Your task to perform on an android device: Search for hotels in Los Angeles Image 0: 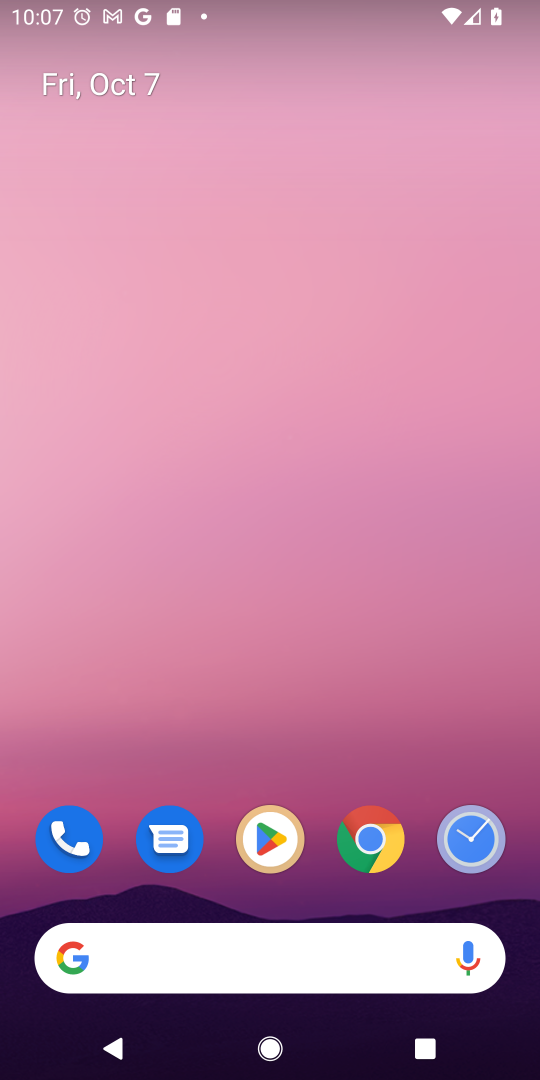
Step 0: click (373, 840)
Your task to perform on an android device: Search for hotels in Los Angeles Image 1: 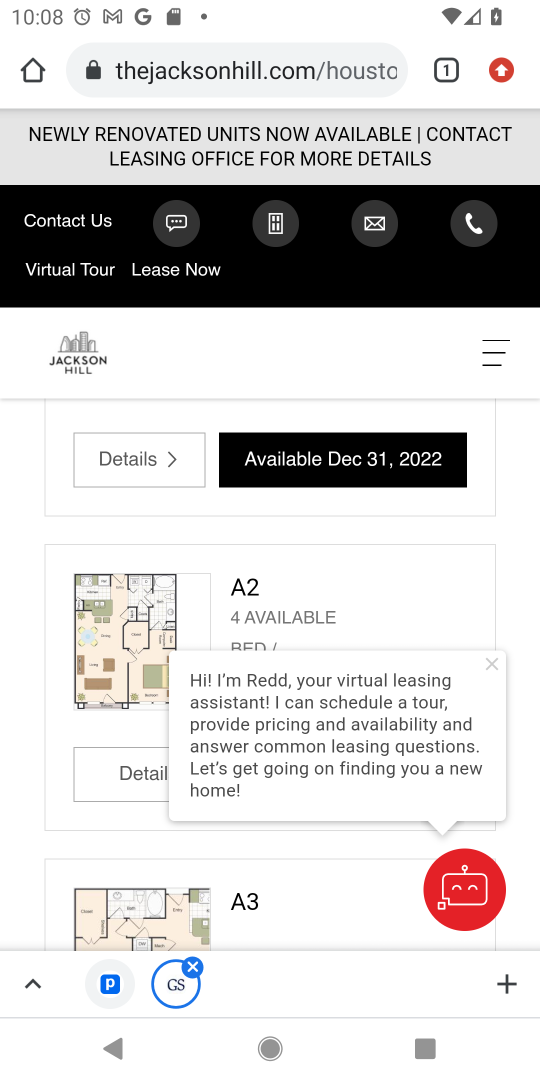
Step 1: click (280, 64)
Your task to perform on an android device: Search for hotels in Los Angeles Image 2: 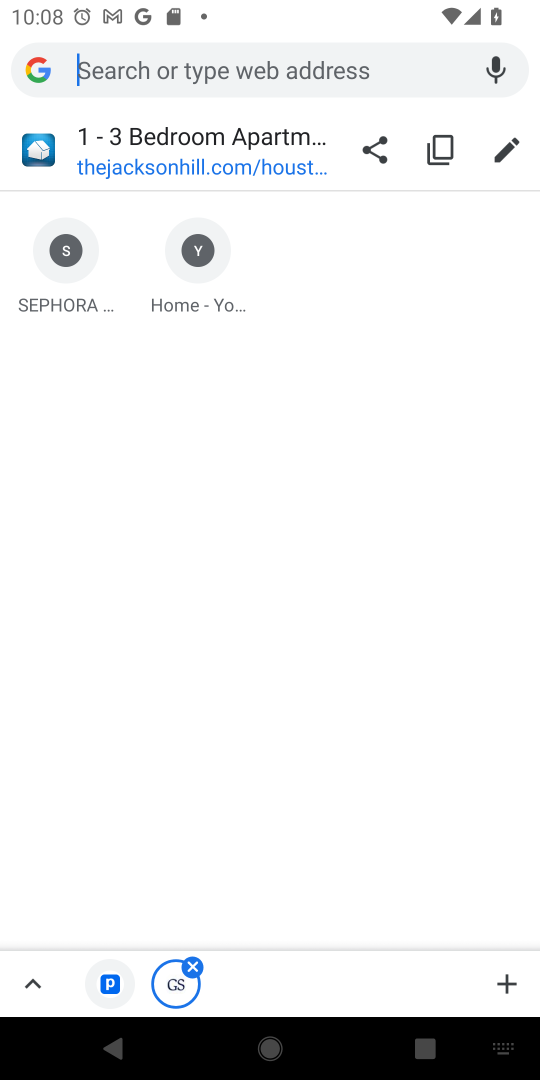
Step 2: type "hotel in los angeles"
Your task to perform on an android device: Search for hotels in Los Angeles Image 3: 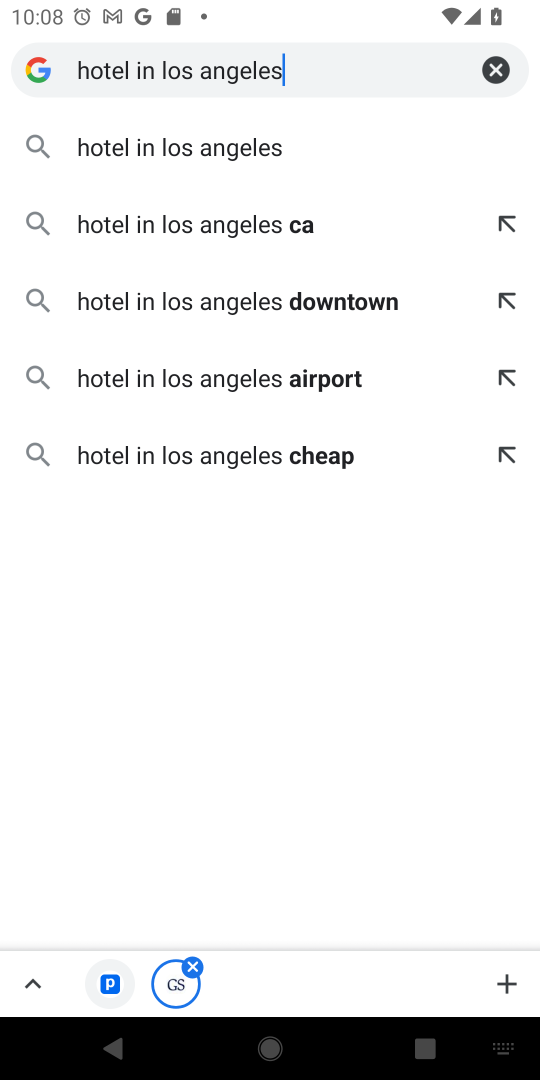
Step 3: click (175, 149)
Your task to perform on an android device: Search for hotels in Los Angeles Image 4: 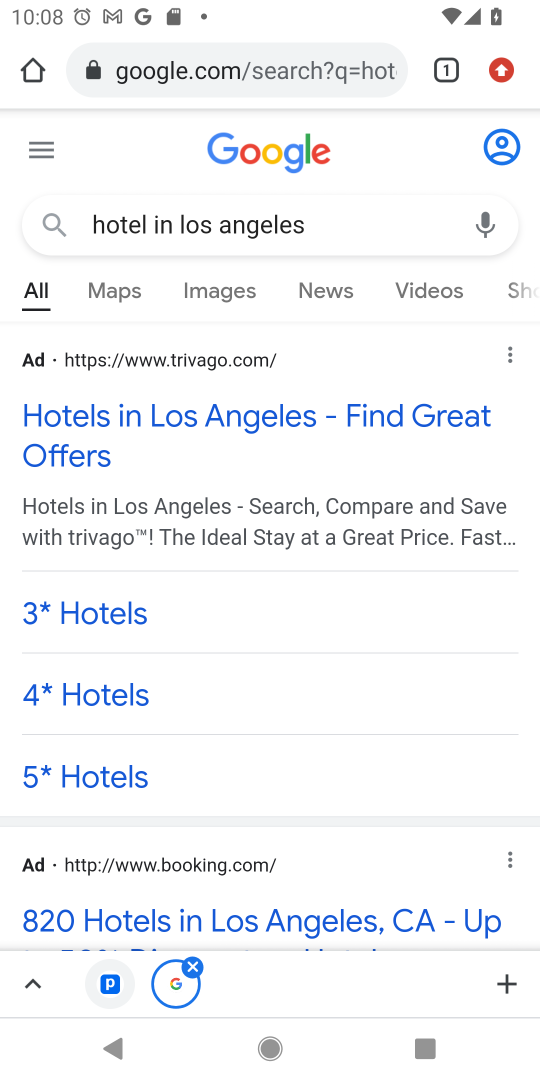
Step 4: click (249, 411)
Your task to perform on an android device: Search for hotels in Los Angeles Image 5: 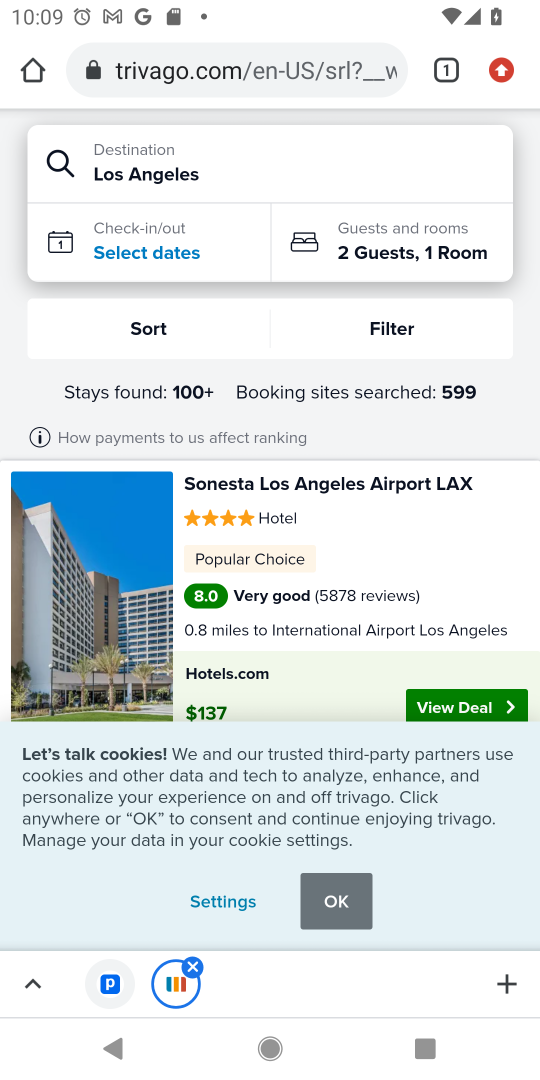
Step 5: drag from (90, 577) to (150, 247)
Your task to perform on an android device: Search for hotels in Los Angeles Image 6: 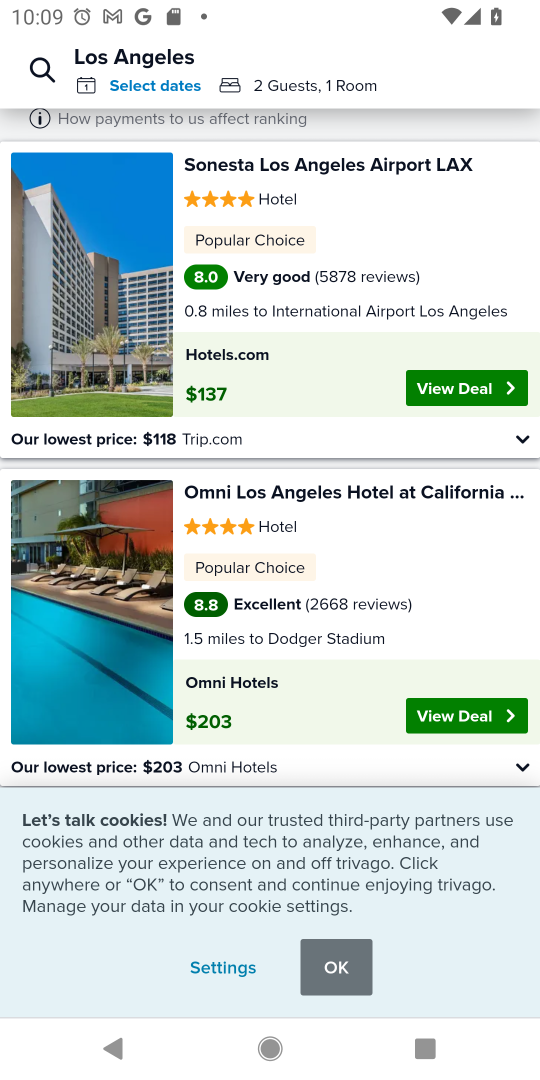
Step 6: drag from (72, 673) to (98, 328)
Your task to perform on an android device: Search for hotels in Los Angeles Image 7: 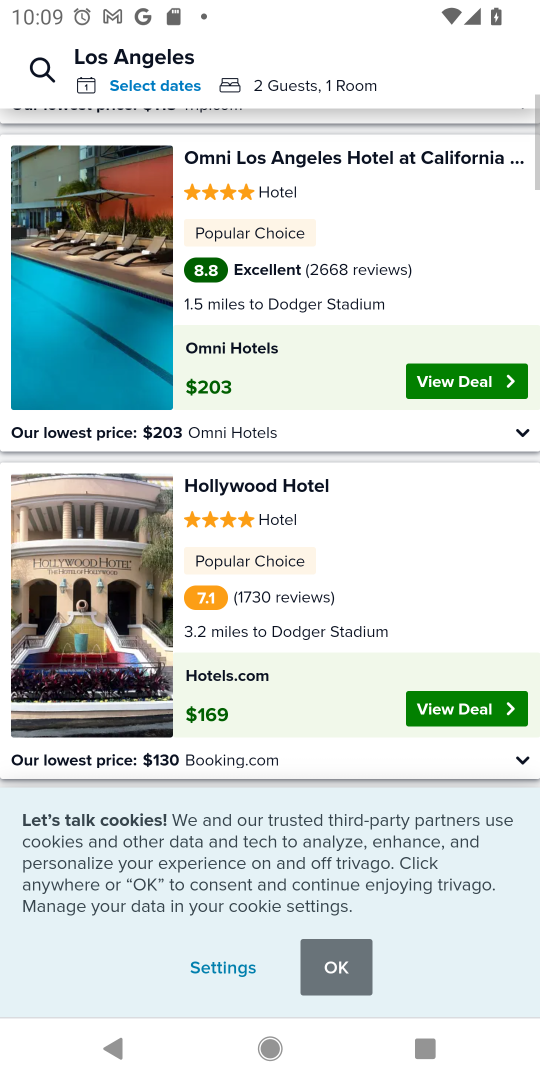
Step 7: drag from (94, 651) to (196, 276)
Your task to perform on an android device: Search for hotels in Los Angeles Image 8: 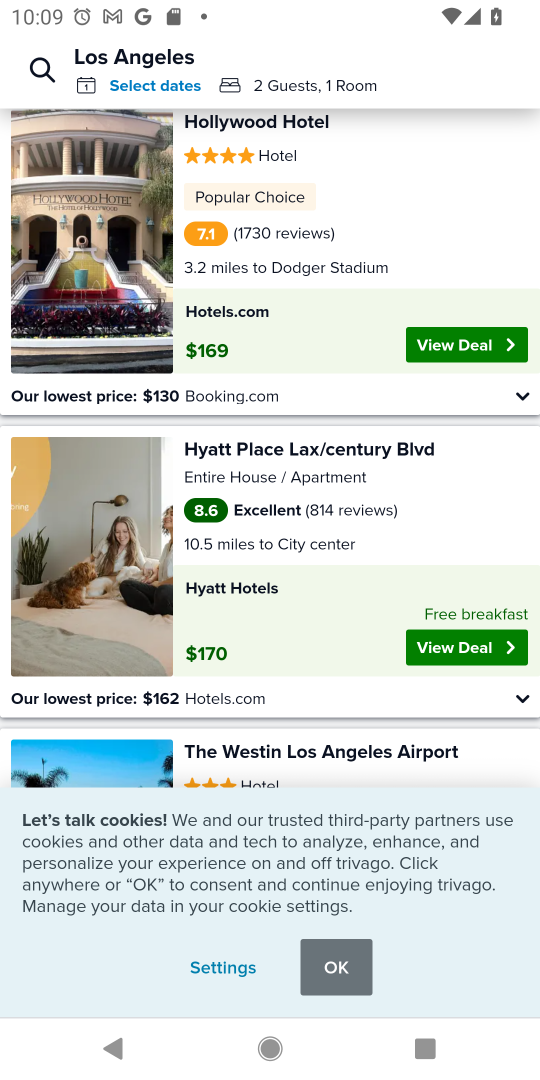
Step 8: drag from (102, 614) to (188, 357)
Your task to perform on an android device: Search for hotels in Los Angeles Image 9: 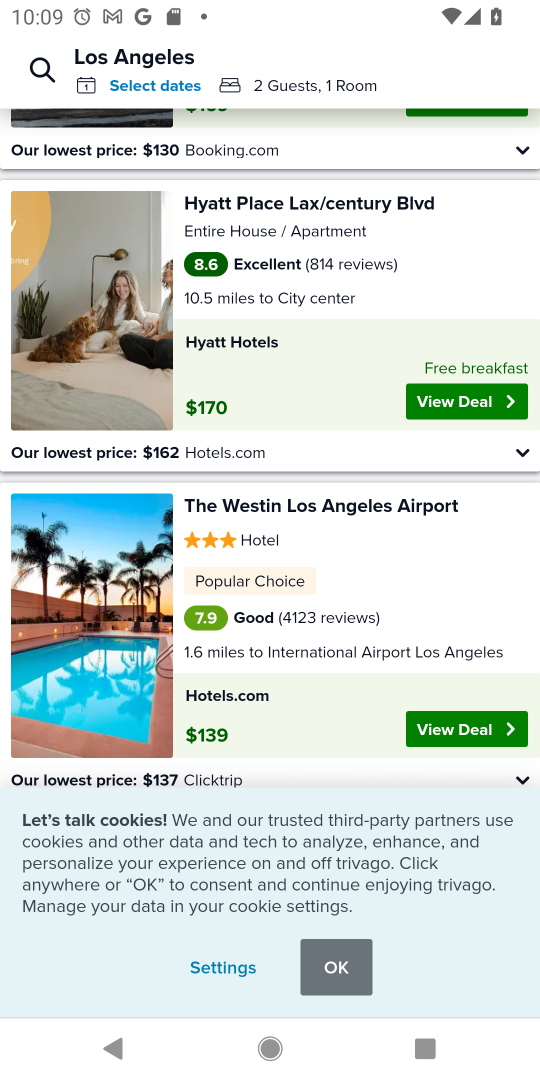
Step 9: drag from (73, 645) to (108, 499)
Your task to perform on an android device: Search for hotels in Los Angeles Image 10: 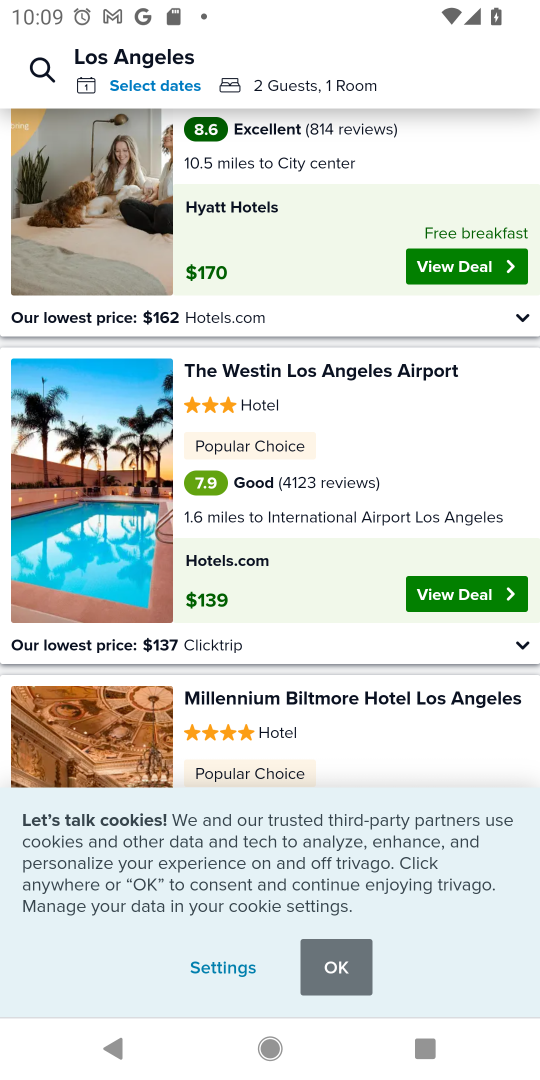
Step 10: drag from (82, 722) to (211, 382)
Your task to perform on an android device: Search for hotels in Los Angeles Image 11: 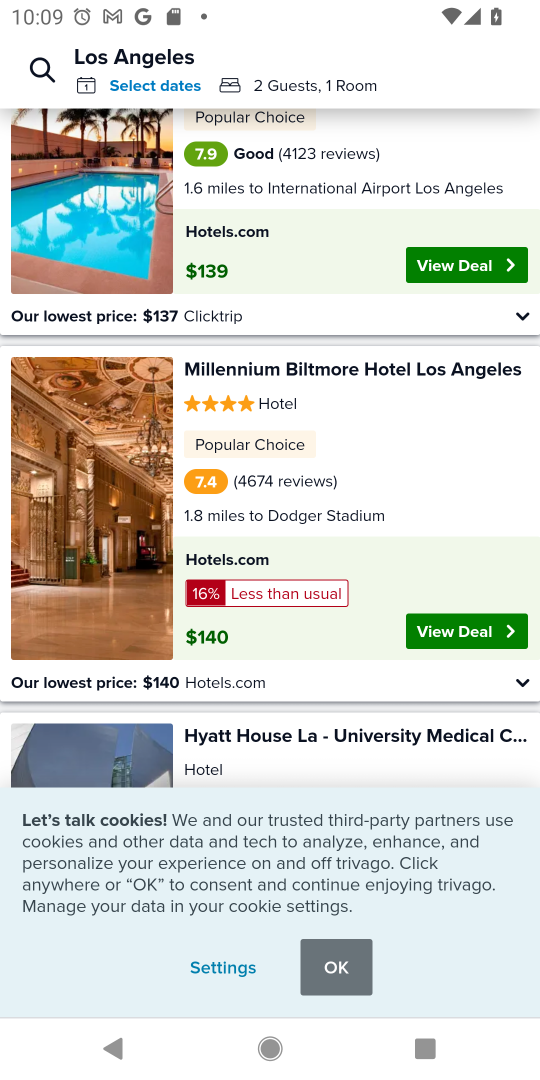
Step 11: drag from (138, 512) to (185, 414)
Your task to perform on an android device: Search for hotels in Los Angeles Image 12: 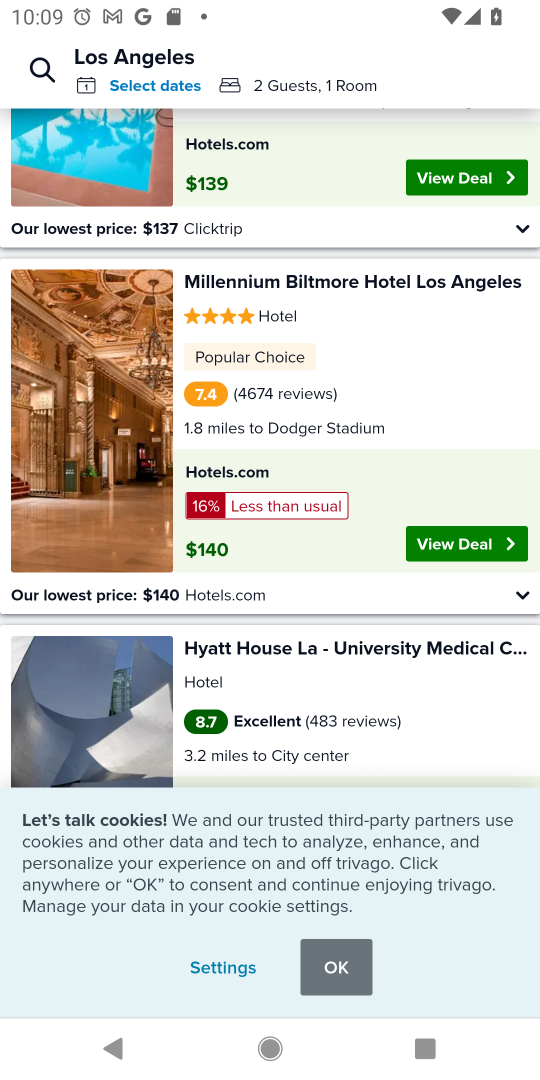
Step 12: click (118, 362)
Your task to perform on an android device: Search for hotels in Los Angeles Image 13: 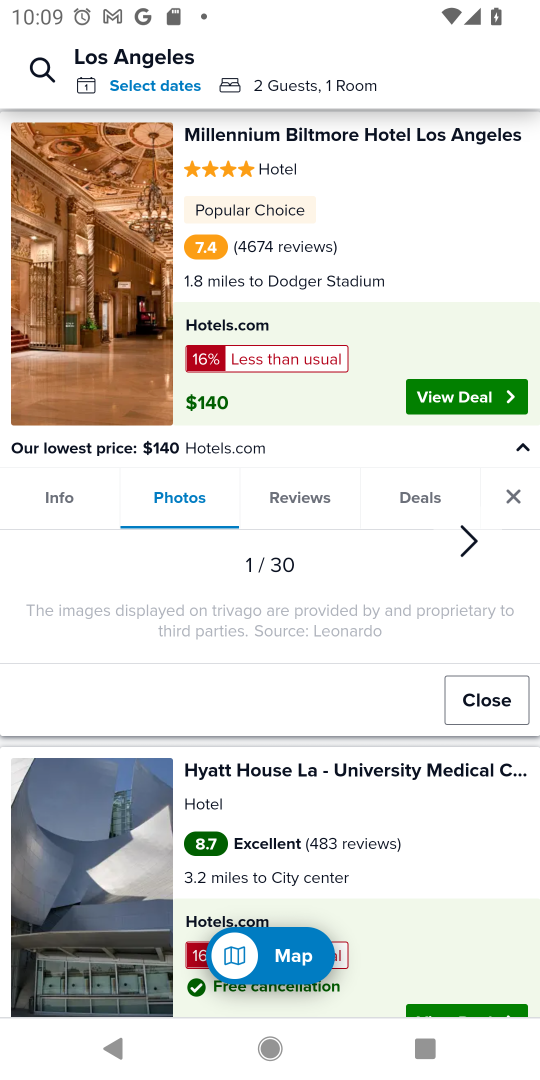
Step 13: click (304, 134)
Your task to perform on an android device: Search for hotels in Los Angeles Image 14: 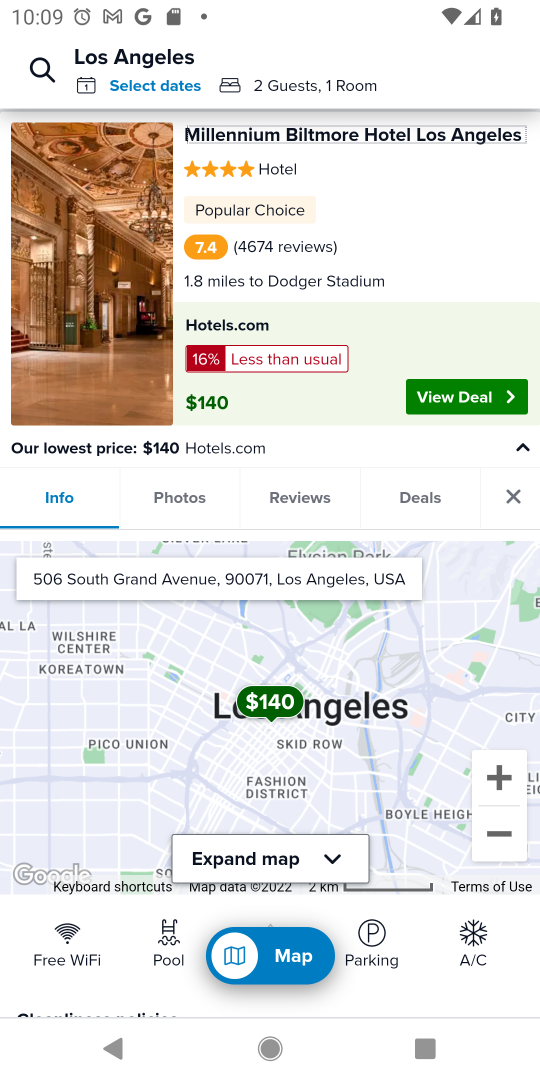
Step 14: task complete